Your task to perform on an android device: turn off data saver in the chrome app Image 0: 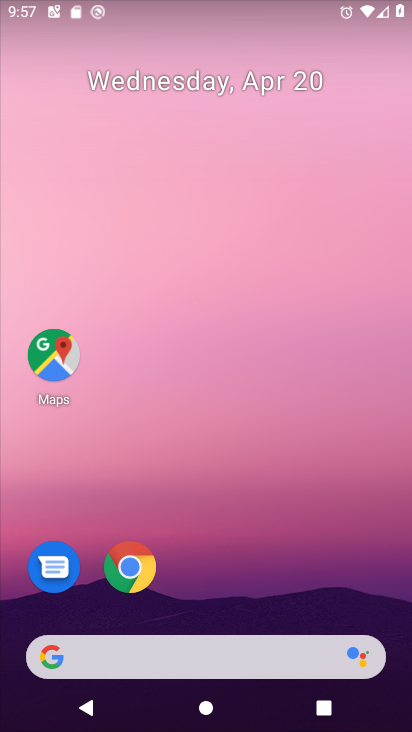
Step 0: drag from (343, 587) to (342, 261)
Your task to perform on an android device: turn off data saver in the chrome app Image 1: 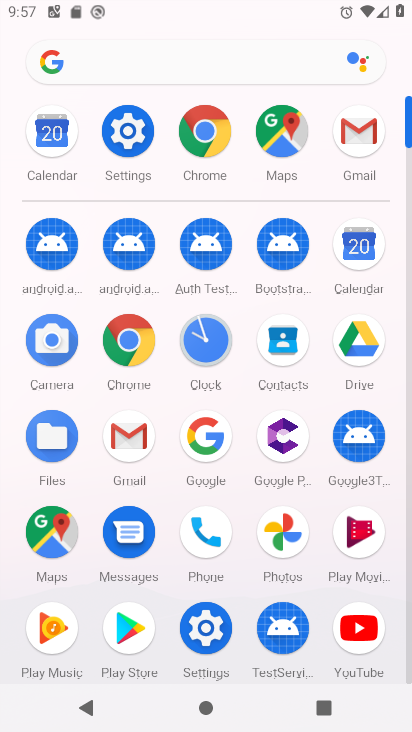
Step 1: click (129, 347)
Your task to perform on an android device: turn off data saver in the chrome app Image 2: 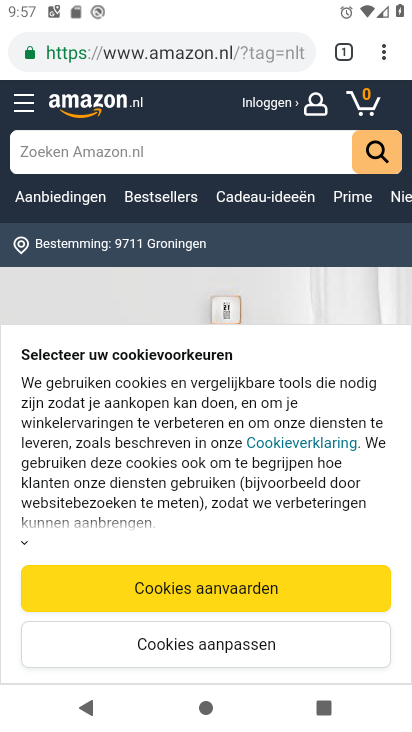
Step 2: click (382, 60)
Your task to perform on an android device: turn off data saver in the chrome app Image 3: 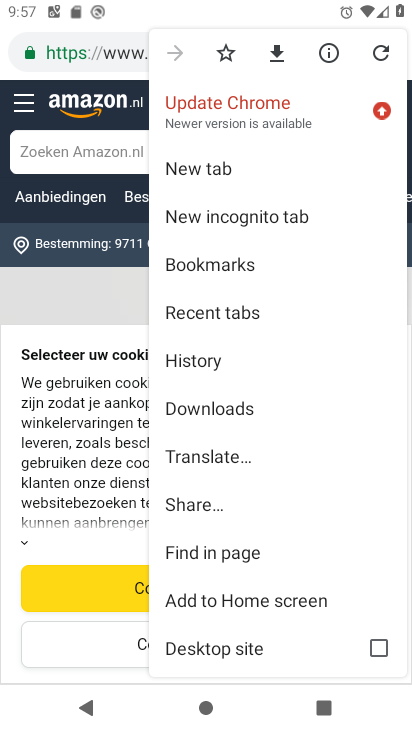
Step 3: drag from (330, 469) to (344, 325)
Your task to perform on an android device: turn off data saver in the chrome app Image 4: 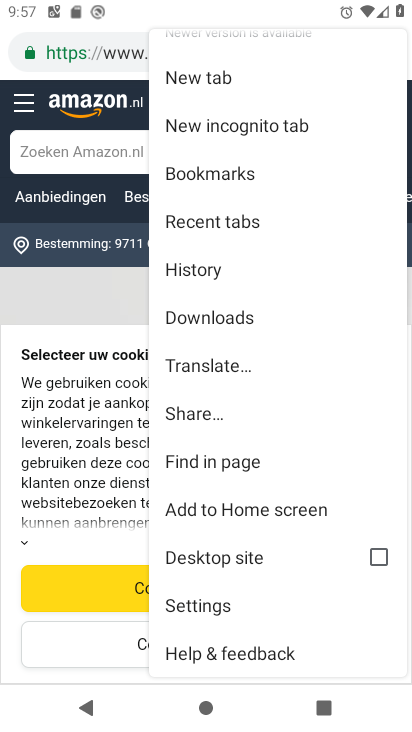
Step 4: click (235, 602)
Your task to perform on an android device: turn off data saver in the chrome app Image 5: 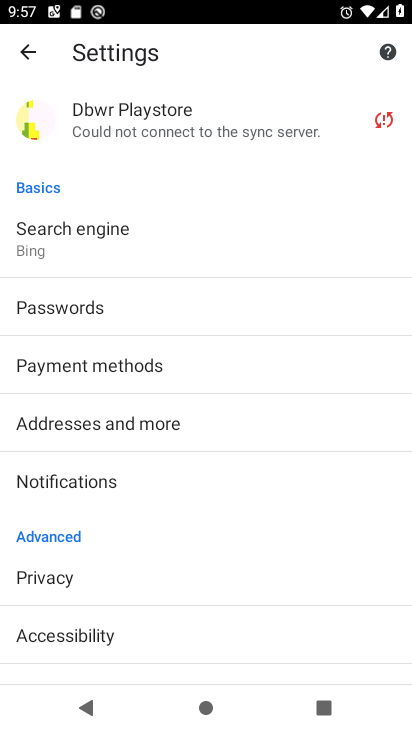
Step 5: drag from (287, 557) to (300, 424)
Your task to perform on an android device: turn off data saver in the chrome app Image 6: 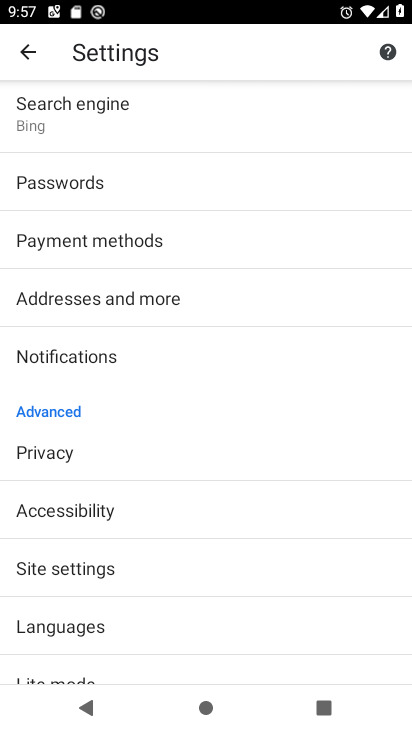
Step 6: drag from (326, 604) to (346, 322)
Your task to perform on an android device: turn off data saver in the chrome app Image 7: 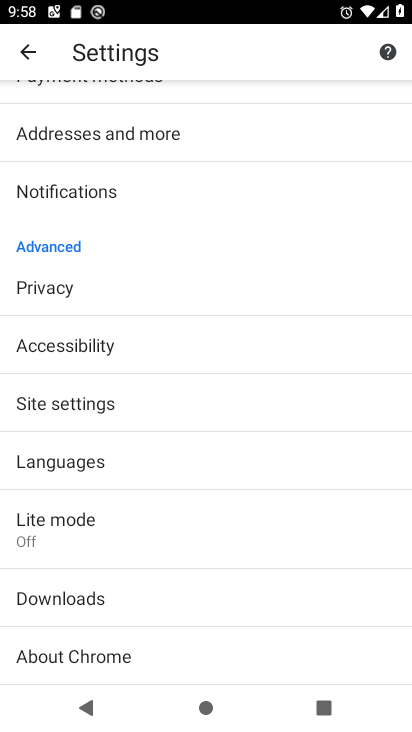
Step 7: click (293, 518)
Your task to perform on an android device: turn off data saver in the chrome app Image 8: 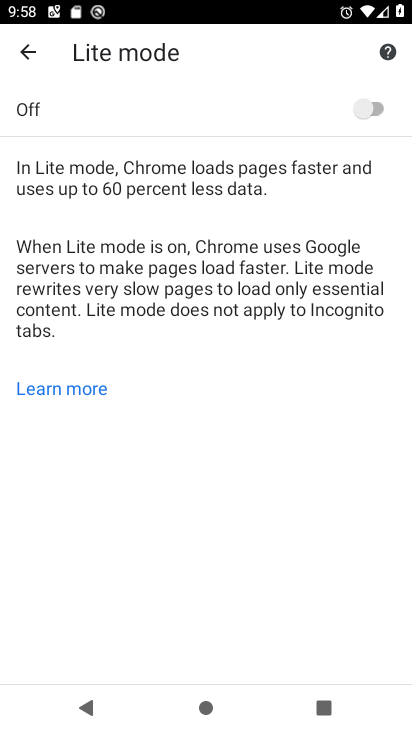
Step 8: task complete